Your task to perform on an android device: all mails in gmail Image 0: 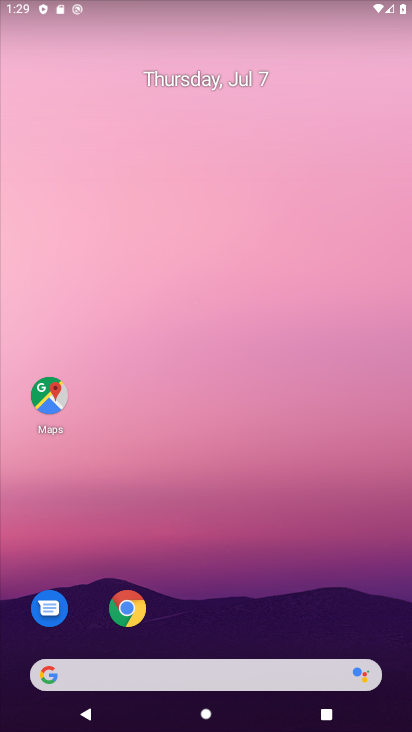
Step 0: drag from (222, 648) to (267, 311)
Your task to perform on an android device: all mails in gmail Image 1: 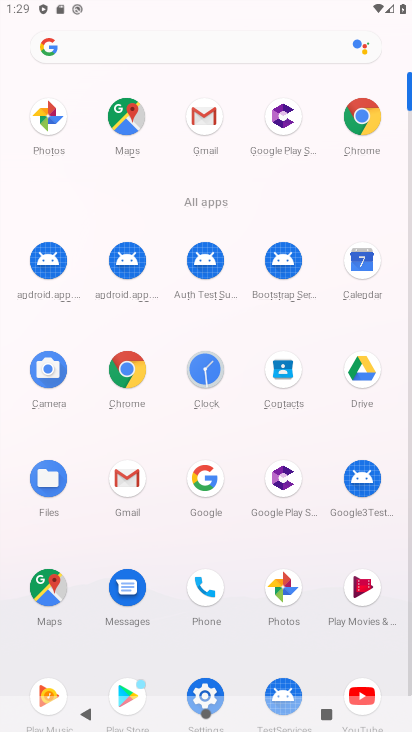
Step 1: click (134, 482)
Your task to perform on an android device: all mails in gmail Image 2: 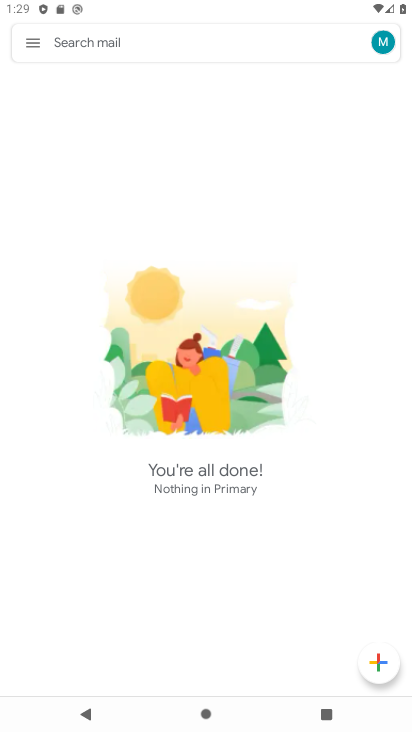
Step 2: click (38, 49)
Your task to perform on an android device: all mails in gmail Image 3: 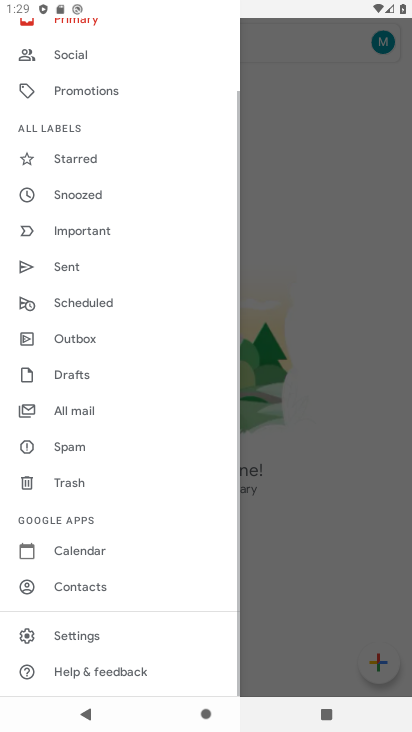
Step 3: click (108, 409)
Your task to perform on an android device: all mails in gmail Image 4: 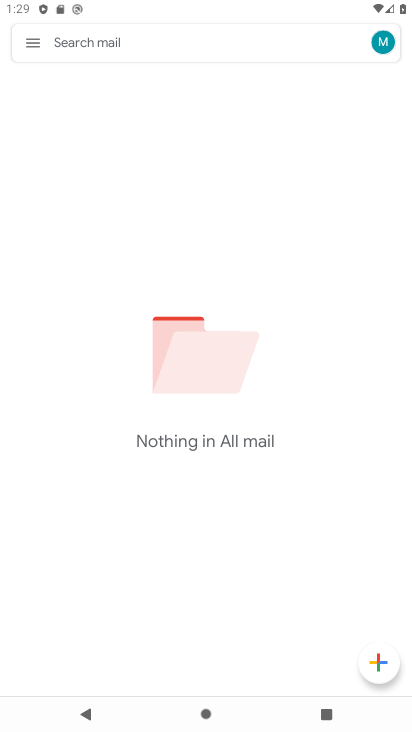
Step 4: task complete